Your task to perform on an android device: Go to location settings Image 0: 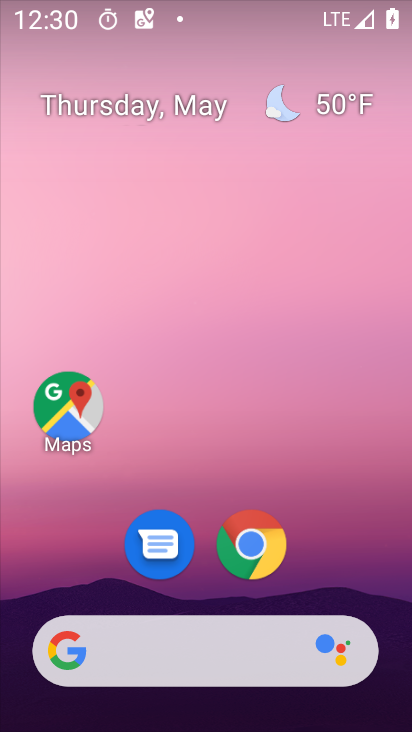
Step 0: drag from (211, 645) to (249, 37)
Your task to perform on an android device: Go to location settings Image 1: 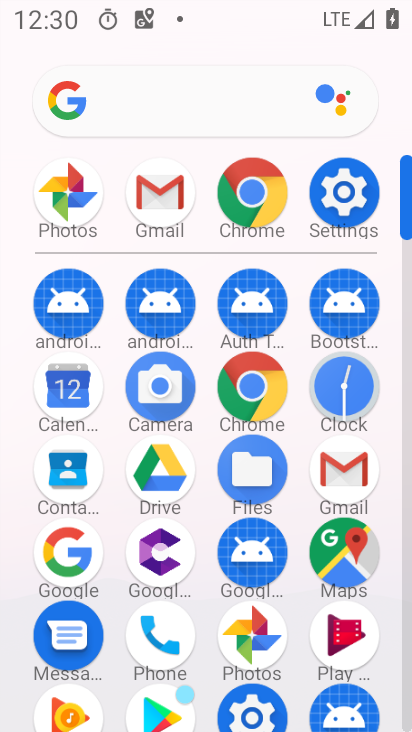
Step 1: click (334, 203)
Your task to perform on an android device: Go to location settings Image 2: 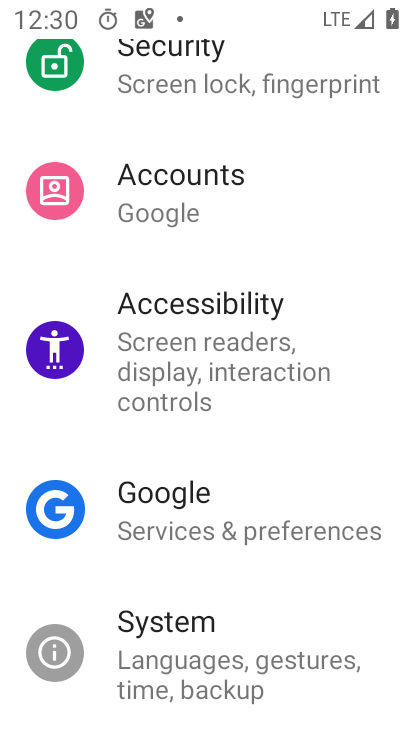
Step 2: drag from (212, 216) to (219, 668)
Your task to perform on an android device: Go to location settings Image 3: 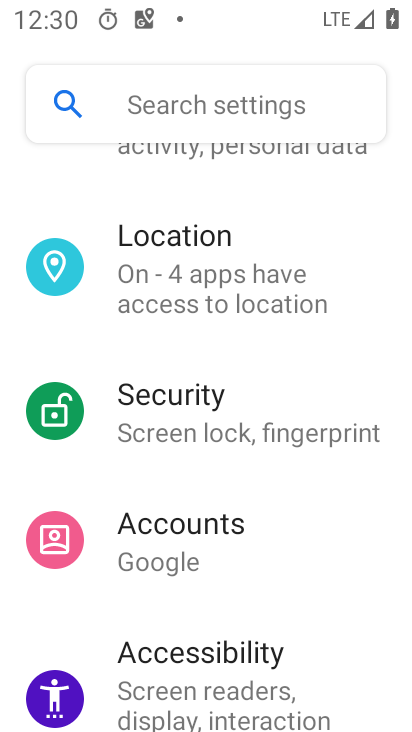
Step 3: drag from (138, 302) to (130, 722)
Your task to perform on an android device: Go to location settings Image 4: 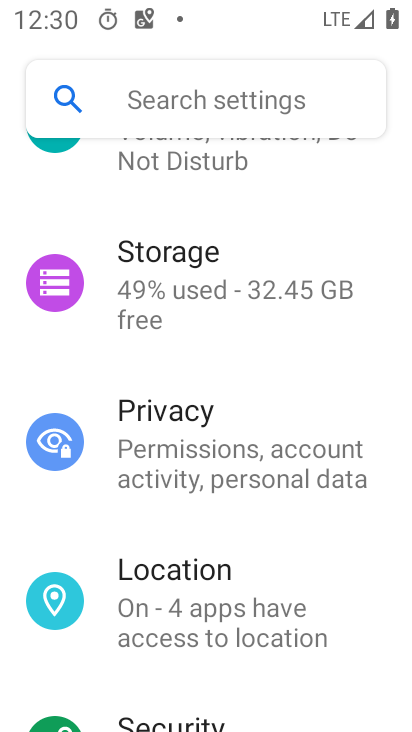
Step 4: drag from (204, 274) to (207, 645)
Your task to perform on an android device: Go to location settings Image 5: 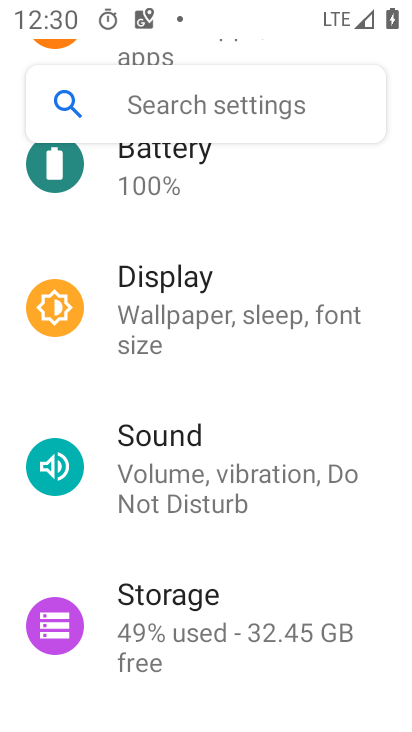
Step 5: drag from (248, 148) to (276, 450)
Your task to perform on an android device: Go to location settings Image 6: 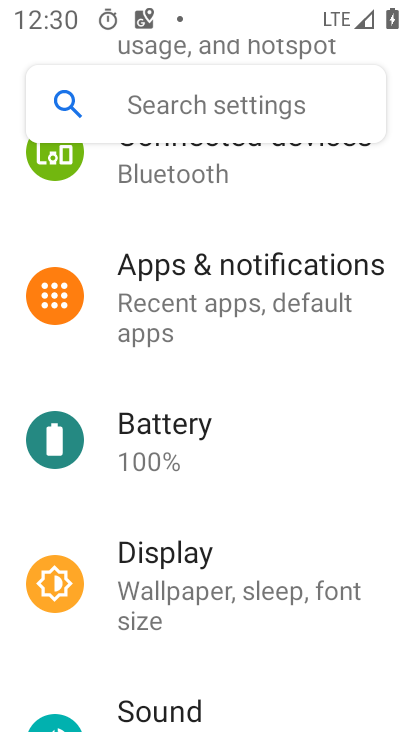
Step 6: drag from (165, 558) to (205, 1)
Your task to perform on an android device: Go to location settings Image 7: 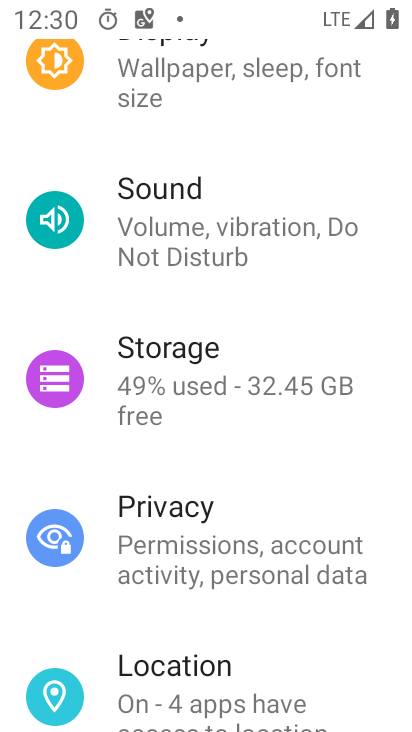
Step 7: drag from (300, 562) to (316, 78)
Your task to perform on an android device: Go to location settings Image 8: 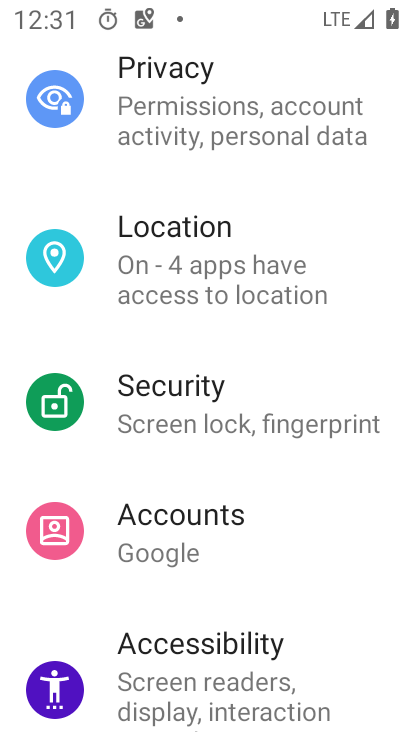
Step 8: click (146, 263)
Your task to perform on an android device: Go to location settings Image 9: 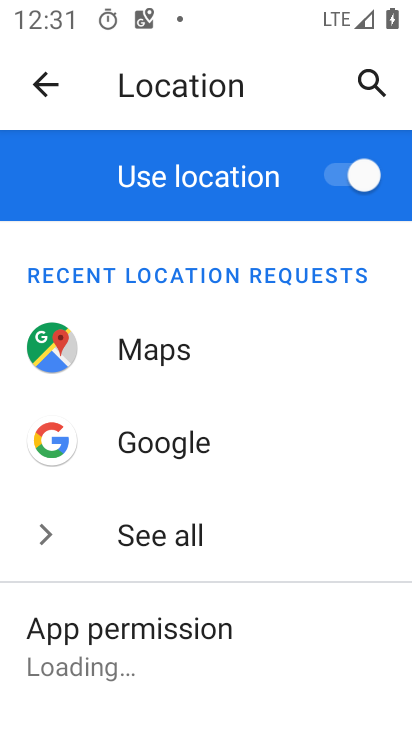
Step 9: task complete